Your task to perform on an android device: Do I have any events today? Image 0: 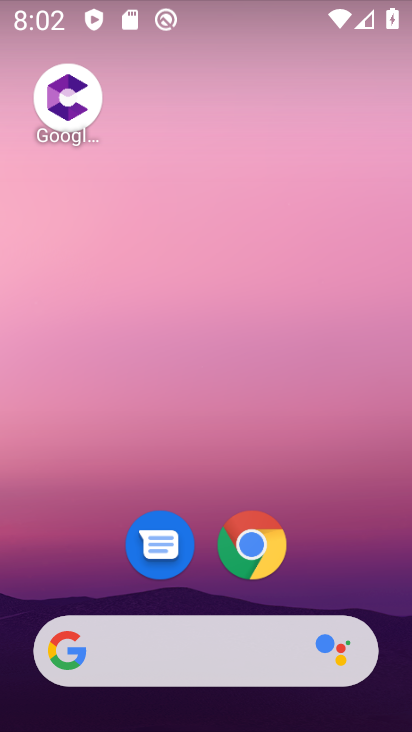
Step 0: drag from (334, 534) to (338, 136)
Your task to perform on an android device: Do I have any events today? Image 1: 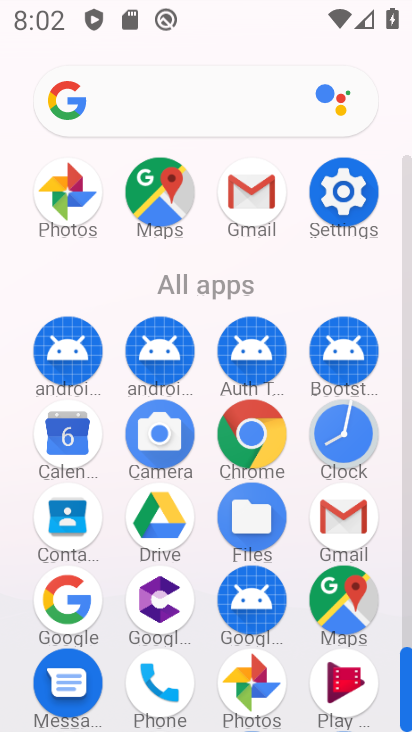
Step 1: click (60, 437)
Your task to perform on an android device: Do I have any events today? Image 2: 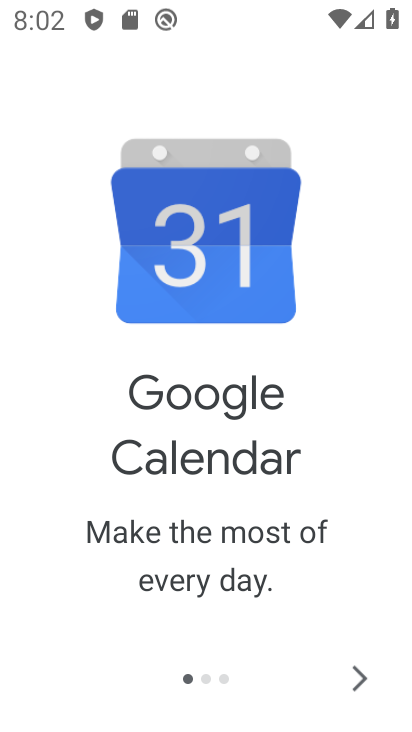
Step 2: click (372, 683)
Your task to perform on an android device: Do I have any events today? Image 3: 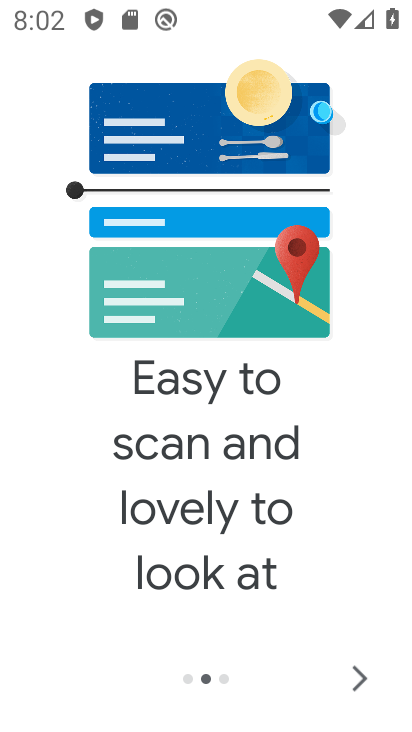
Step 3: click (341, 668)
Your task to perform on an android device: Do I have any events today? Image 4: 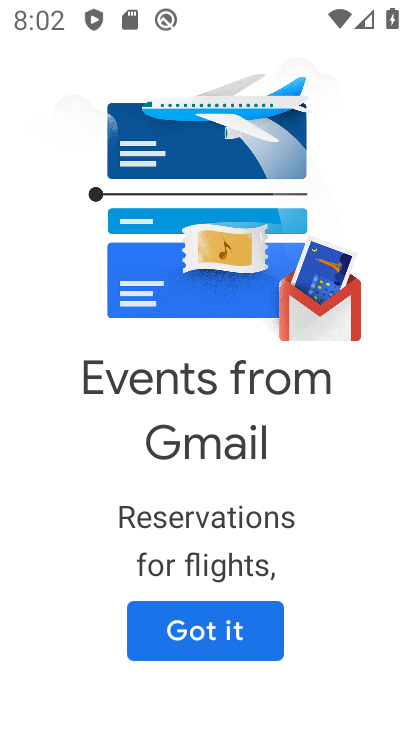
Step 4: click (226, 610)
Your task to perform on an android device: Do I have any events today? Image 5: 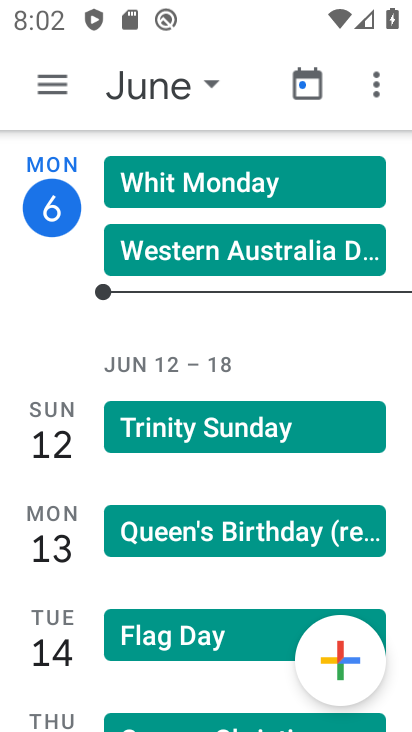
Step 5: task complete